Your task to perform on an android device: Open Chrome and go to settings Image 0: 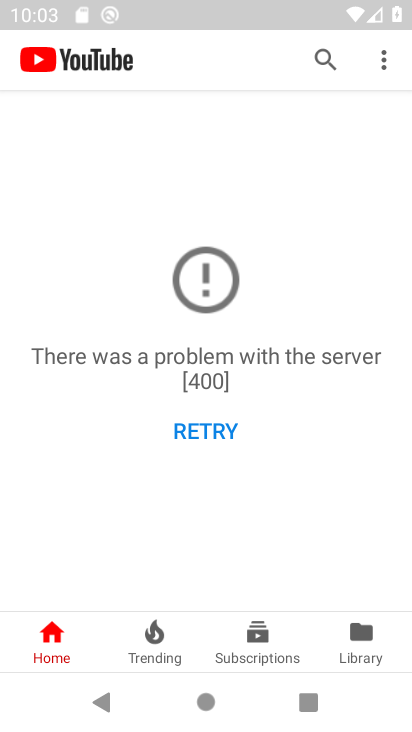
Step 0: press home button
Your task to perform on an android device: Open Chrome and go to settings Image 1: 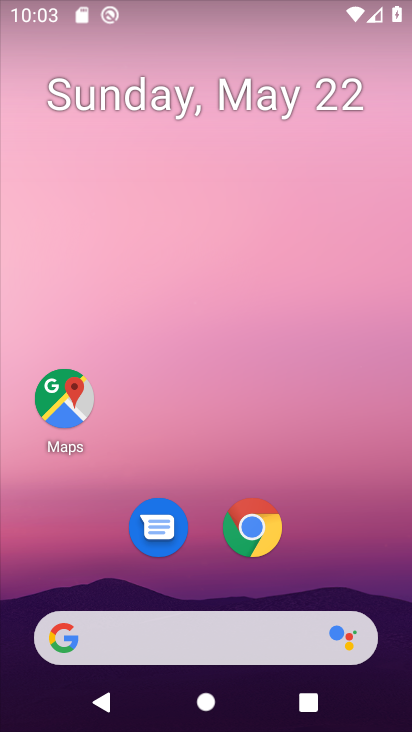
Step 1: drag from (286, 569) to (386, 63)
Your task to perform on an android device: Open Chrome and go to settings Image 2: 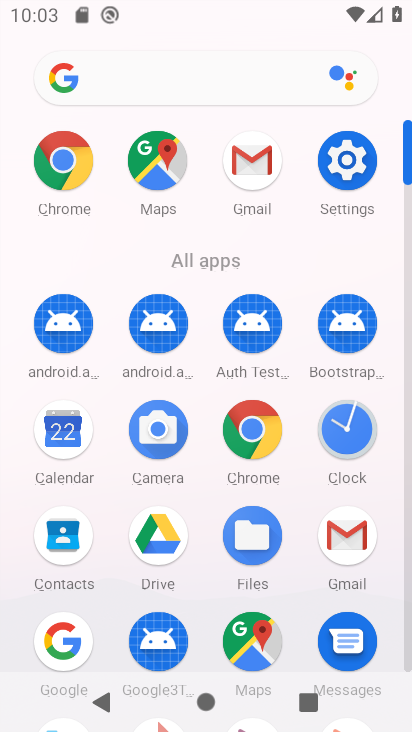
Step 2: click (68, 175)
Your task to perform on an android device: Open Chrome and go to settings Image 3: 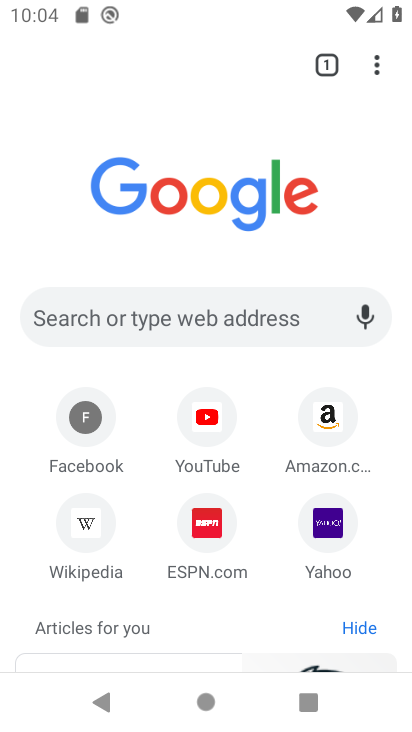
Step 3: click (379, 65)
Your task to perform on an android device: Open Chrome and go to settings Image 4: 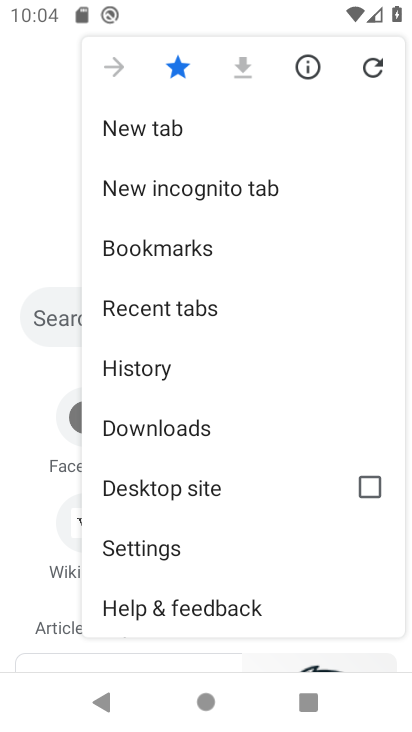
Step 4: click (174, 549)
Your task to perform on an android device: Open Chrome and go to settings Image 5: 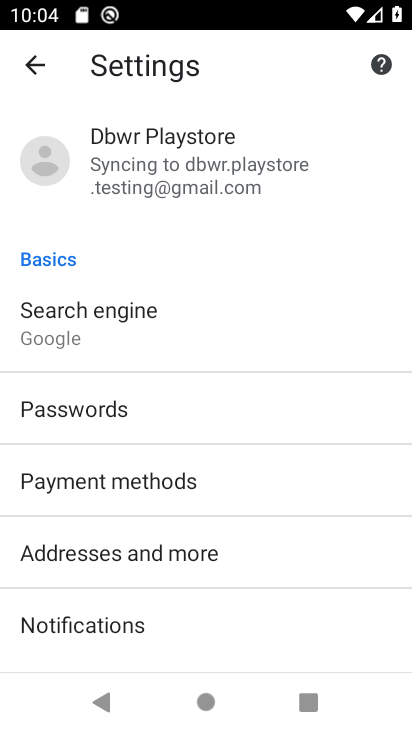
Step 5: task complete